Your task to perform on an android device: When is my next appointment? Image 0: 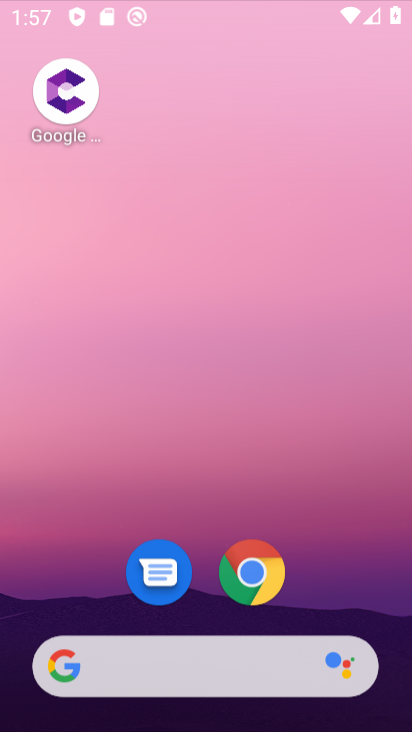
Step 0: click (253, 136)
Your task to perform on an android device: When is my next appointment? Image 1: 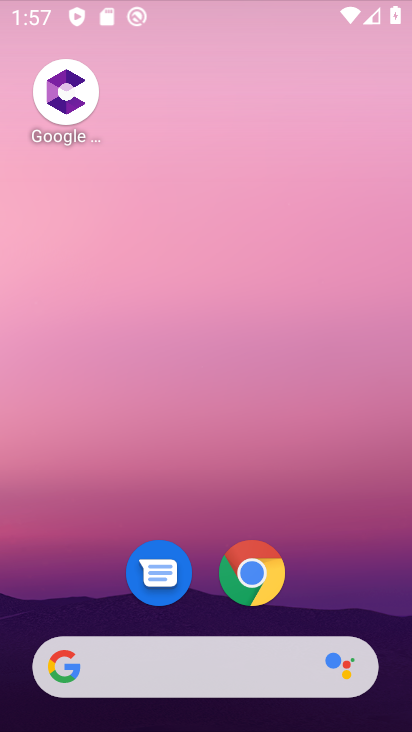
Step 1: press home button
Your task to perform on an android device: When is my next appointment? Image 2: 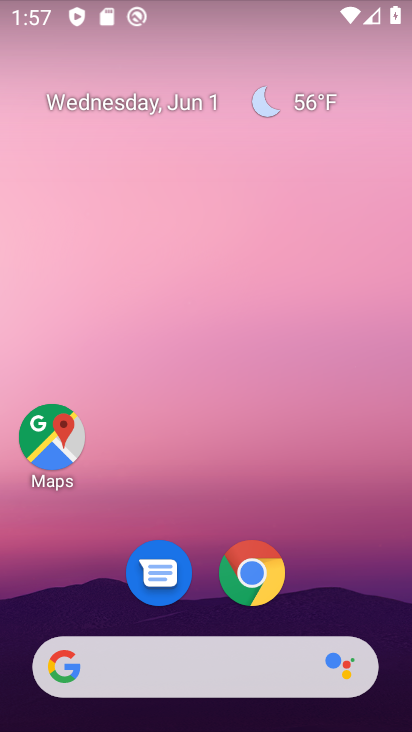
Step 2: drag from (240, 590) to (197, 211)
Your task to perform on an android device: When is my next appointment? Image 3: 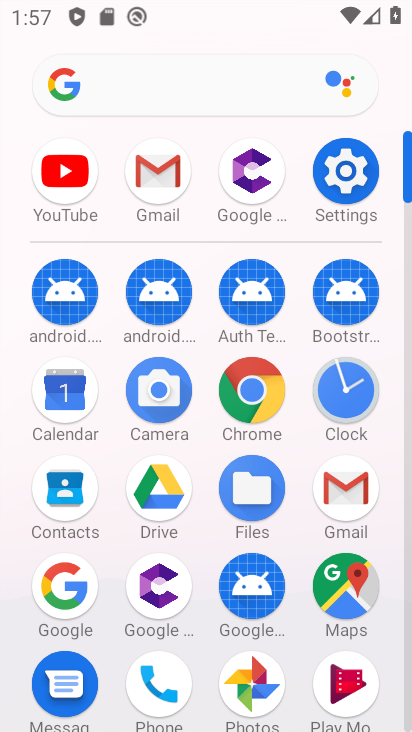
Step 3: click (69, 396)
Your task to perform on an android device: When is my next appointment? Image 4: 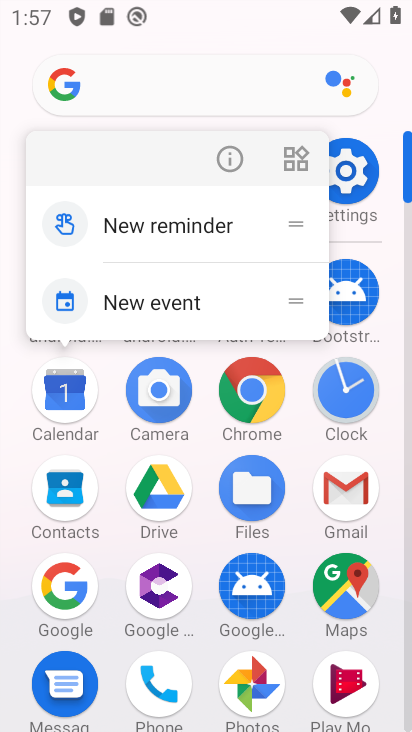
Step 4: click (229, 158)
Your task to perform on an android device: When is my next appointment? Image 5: 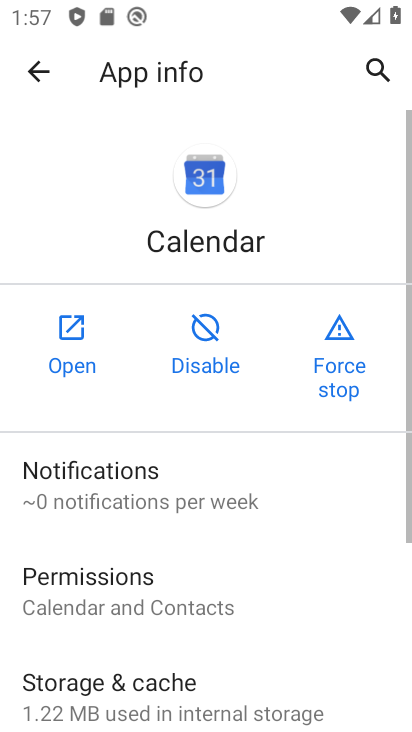
Step 5: click (74, 351)
Your task to perform on an android device: When is my next appointment? Image 6: 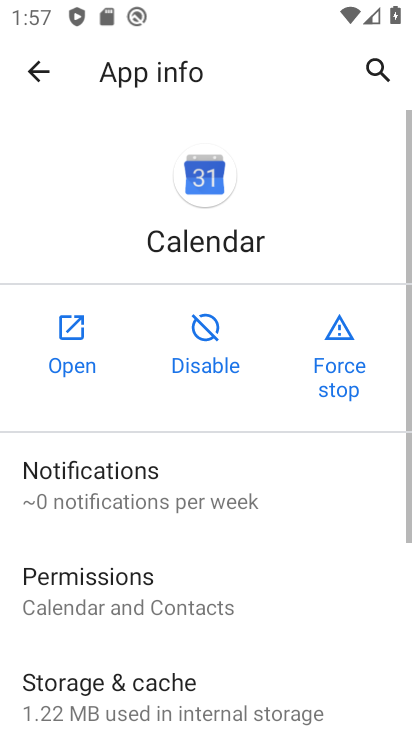
Step 6: click (74, 351)
Your task to perform on an android device: When is my next appointment? Image 7: 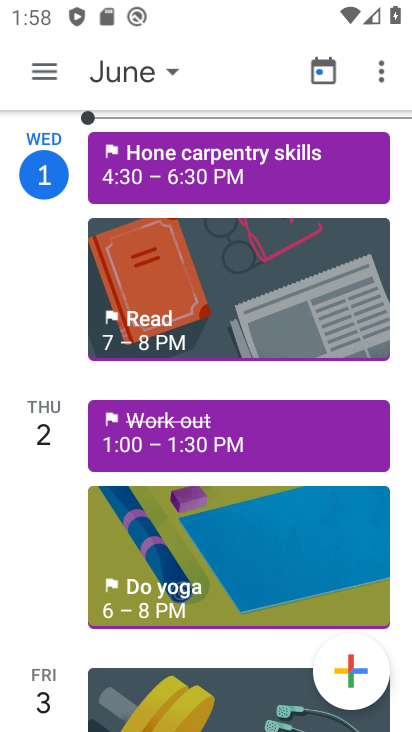
Step 7: click (164, 64)
Your task to perform on an android device: When is my next appointment? Image 8: 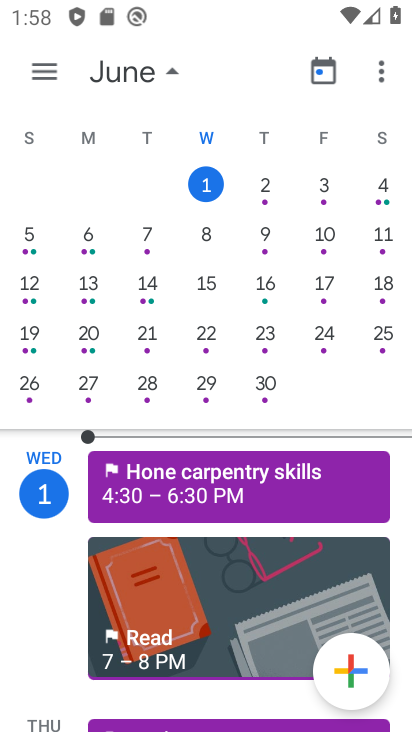
Step 8: click (205, 207)
Your task to perform on an android device: When is my next appointment? Image 9: 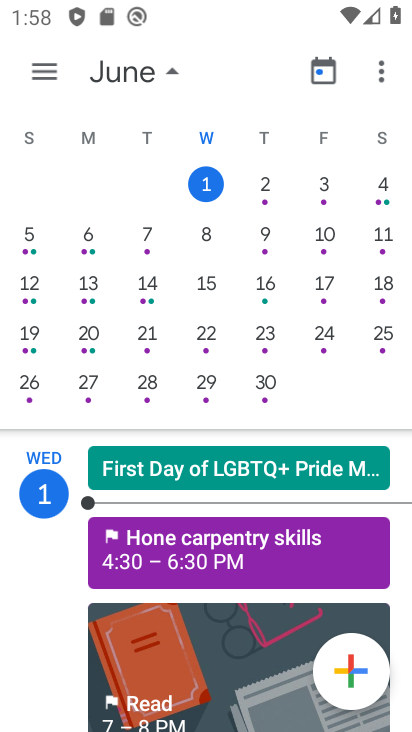
Step 9: task complete